Your task to perform on an android device: toggle javascript in the chrome app Image 0: 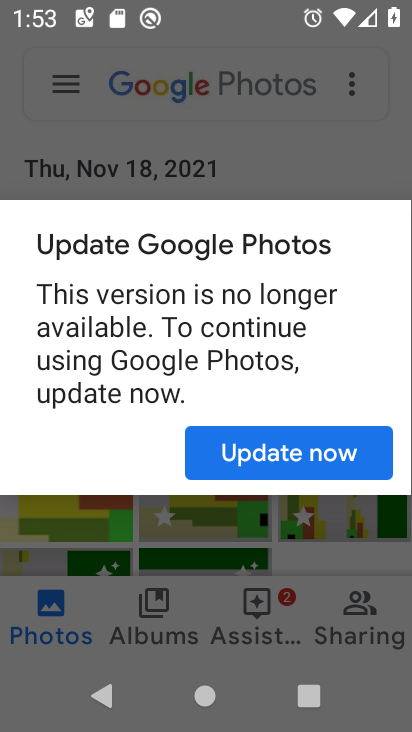
Step 0: press home button
Your task to perform on an android device: toggle javascript in the chrome app Image 1: 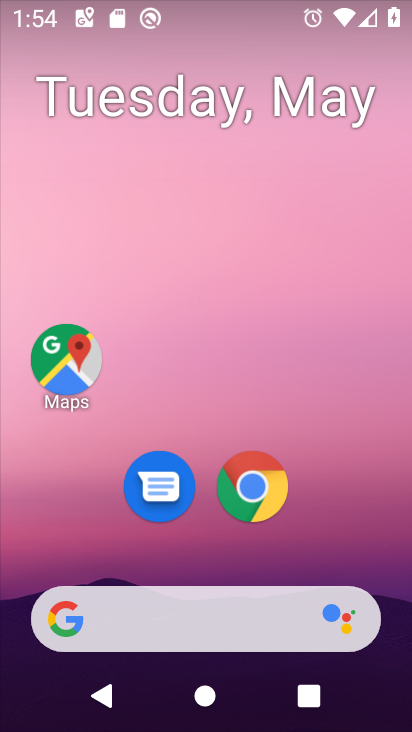
Step 1: click (269, 507)
Your task to perform on an android device: toggle javascript in the chrome app Image 2: 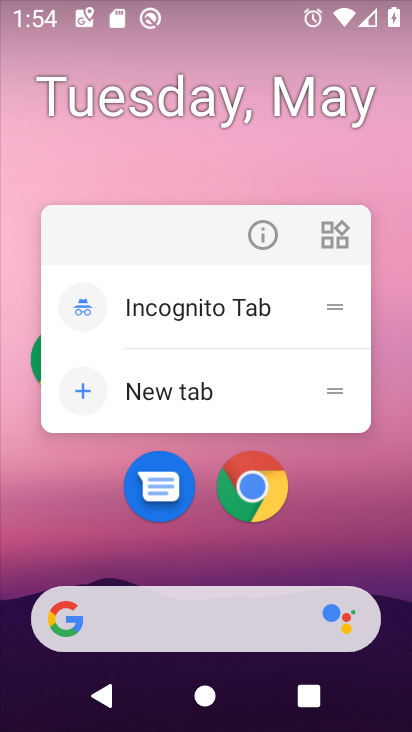
Step 2: click (253, 482)
Your task to perform on an android device: toggle javascript in the chrome app Image 3: 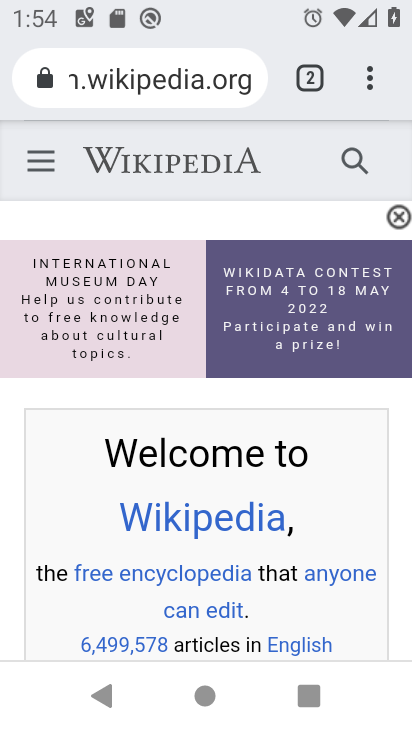
Step 3: click (362, 80)
Your task to perform on an android device: toggle javascript in the chrome app Image 4: 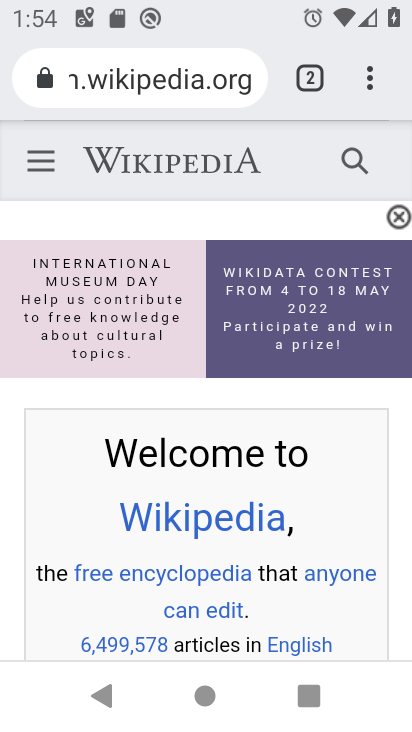
Step 4: click (371, 82)
Your task to perform on an android device: toggle javascript in the chrome app Image 5: 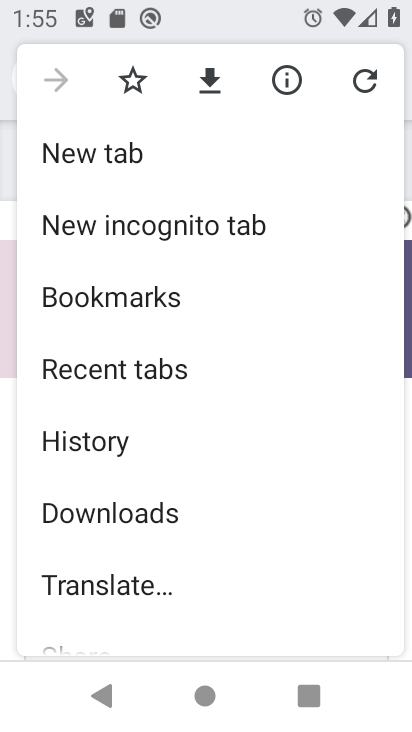
Step 5: drag from (72, 578) to (194, 219)
Your task to perform on an android device: toggle javascript in the chrome app Image 6: 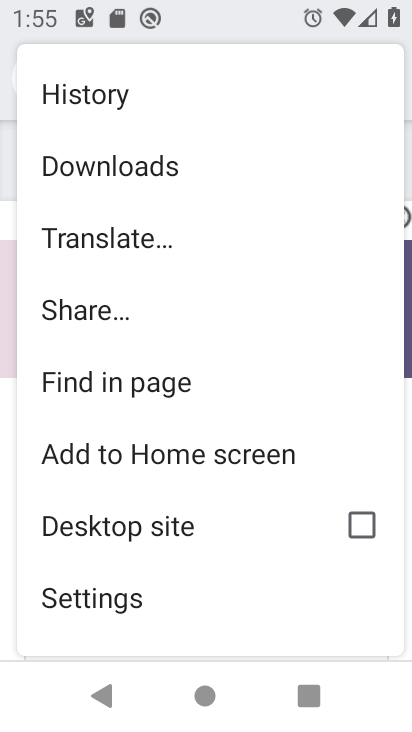
Step 6: click (66, 596)
Your task to perform on an android device: toggle javascript in the chrome app Image 7: 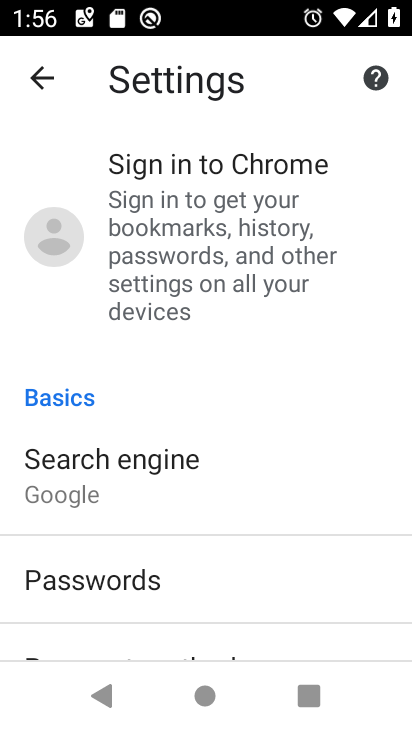
Step 7: drag from (59, 496) to (196, 204)
Your task to perform on an android device: toggle javascript in the chrome app Image 8: 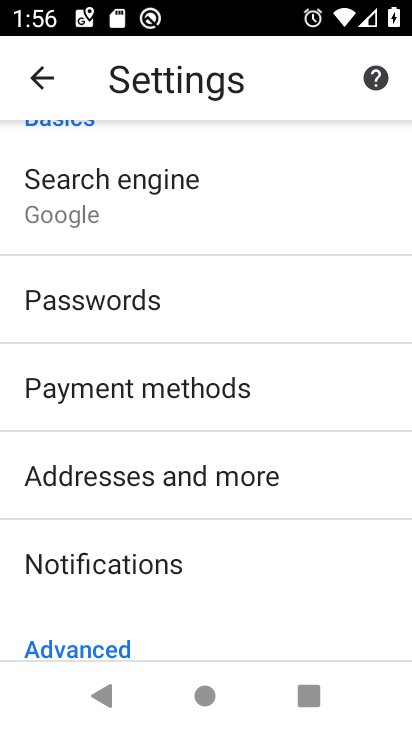
Step 8: drag from (20, 475) to (153, 266)
Your task to perform on an android device: toggle javascript in the chrome app Image 9: 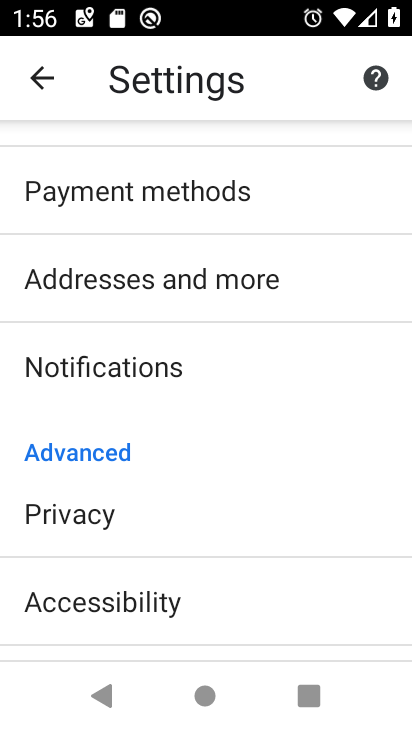
Step 9: drag from (29, 591) to (151, 301)
Your task to perform on an android device: toggle javascript in the chrome app Image 10: 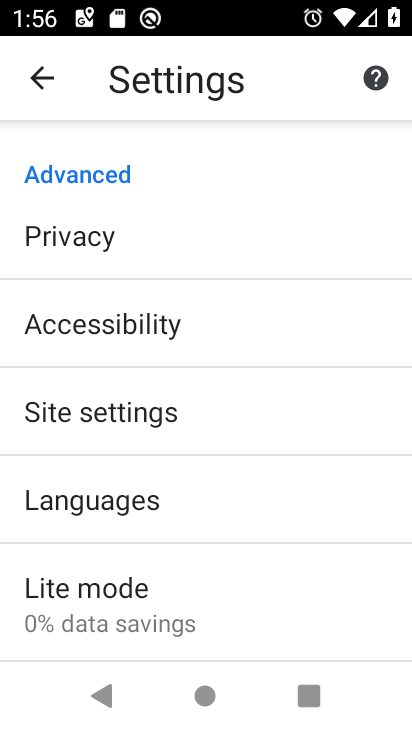
Step 10: click (65, 412)
Your task to perform on an android device: toggle javascript in the chrome app Image 11: 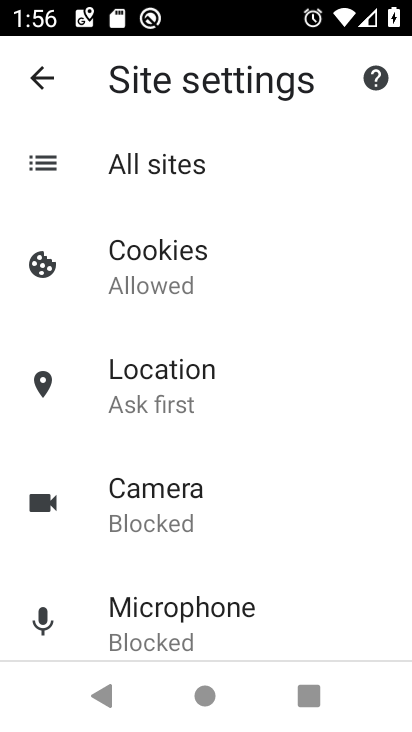
Step 11: drag from (48, 608) to (281, 186)
Your task to perform on an android device: toggle javascript in the chrome app Image 12: 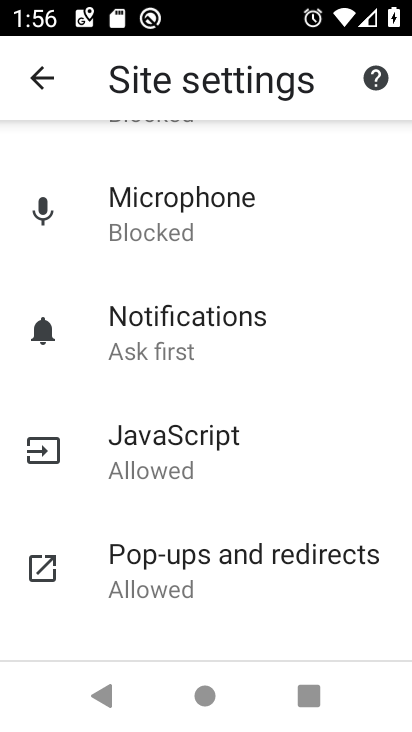
Step 12: click (111, 456)
Your task to perform on an android device: toggle javascript in the chrome app Image 13: 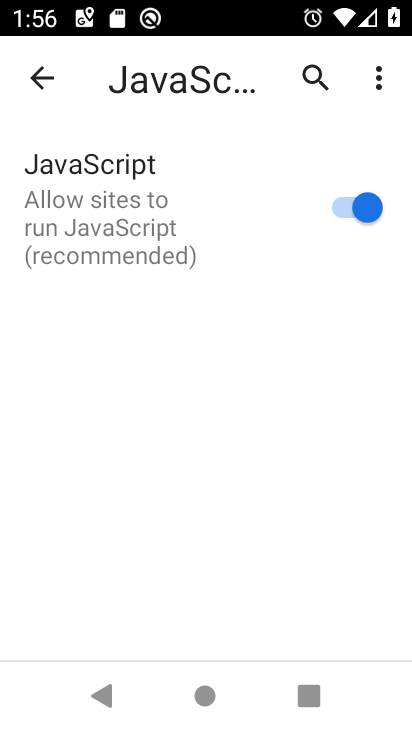
Step 13: click (366, 199)
Your task to perform on an android device: toggle javascript in the chrome app Image 14: 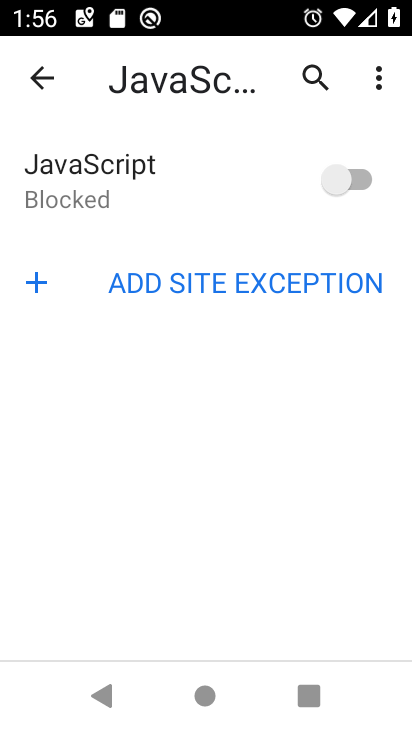
Step 14: task complete